Your task to perform on an android device: Open privacy settings Image 0: 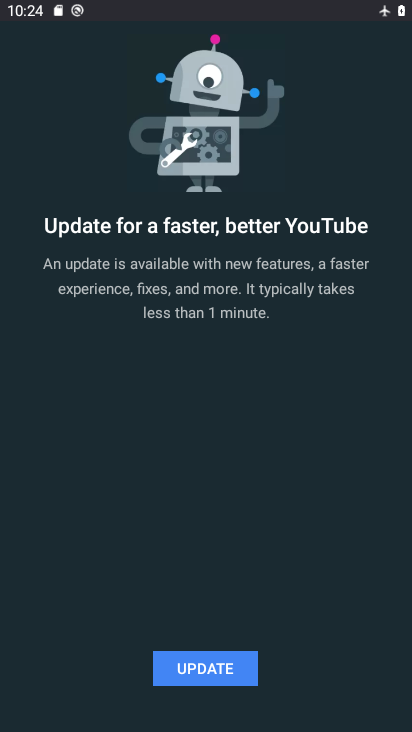
Step 0: press back button
Your task to perform on an android device: Open privacy settings Image 1: 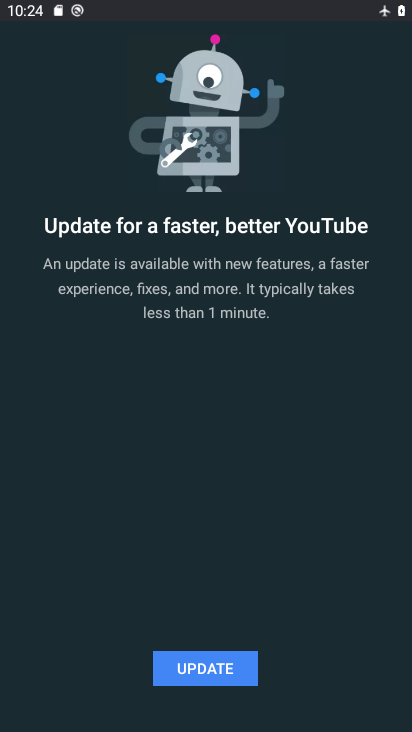
Step 1: press back button
Your task to perform on an android device: Open privacy settings Image 2: 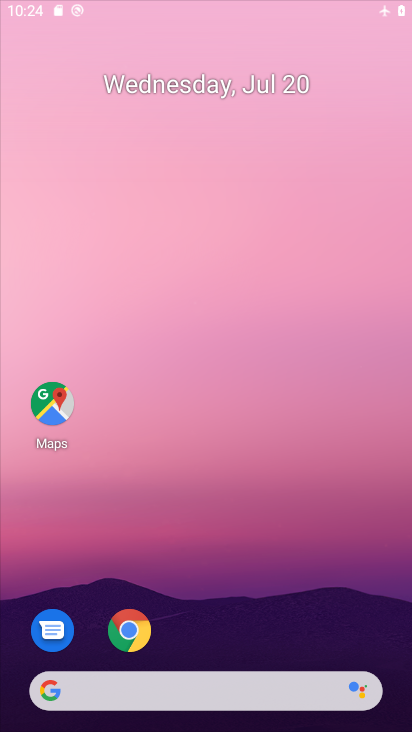
Step 2: press back button
Your task to perform on an android device: Open privacy settings Image 3: 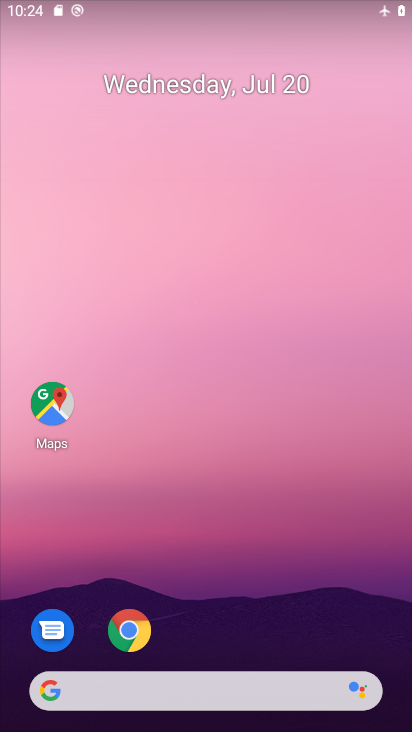
Step 3: drag from (238, 621) to (205, 264)
Your task to perform on an android device: Open privacy settings Image 4: 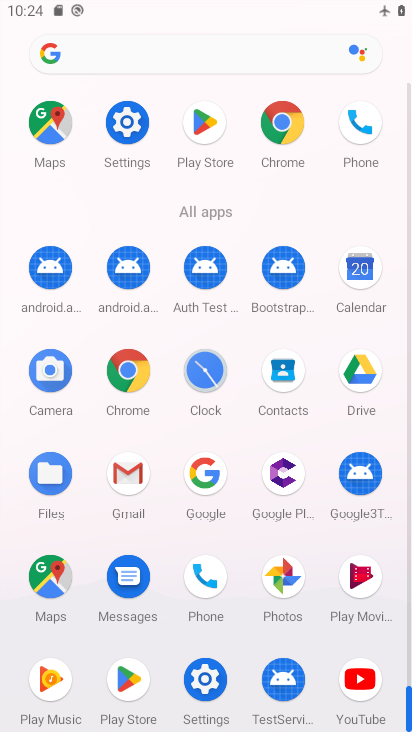
Step 4: click (209, 670)
Your task to perform on an android device: Open privacy settings Image 5: 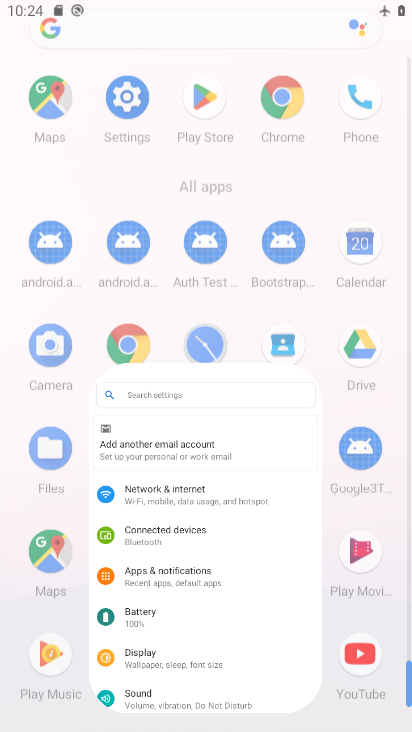
Step 5: click (209, 671)
Your task to perform on an android device: Open privacy settings Image 6: 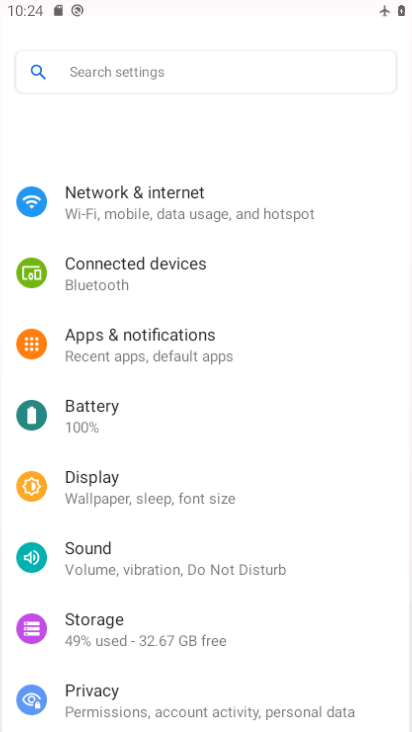
Step 6: click (210, 673)
Your task to perform on an android device: Open privacy settings Image 7: 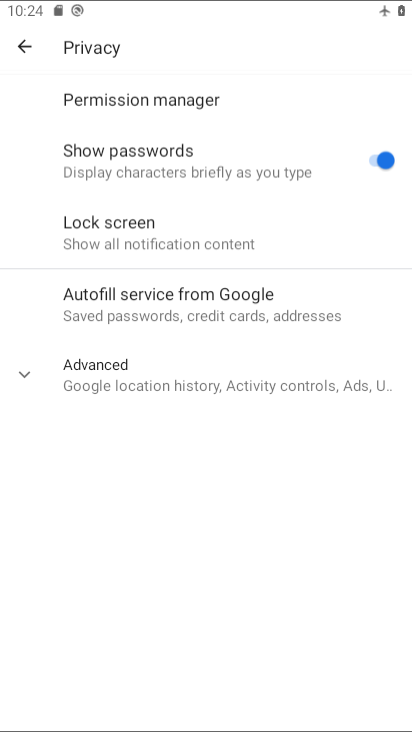
Step 7: click (75, 658)
Your task to perform on an android device: Open privacy settings Image 8: 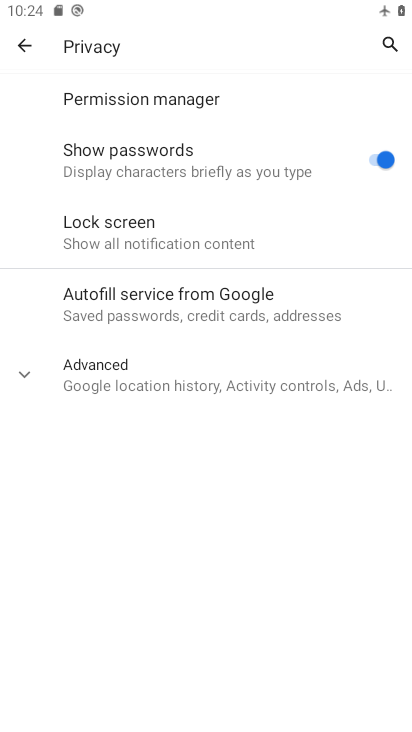
Step 8: click (80, 664)
Your task to perform on an android device: Open privacy settings Image 9: 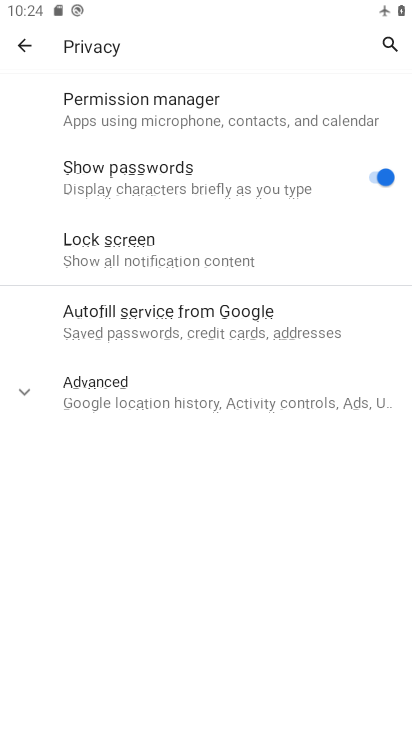
Step 9: click (81, 664)
Your task to perform on an android device: Open privacy settings Image 10: 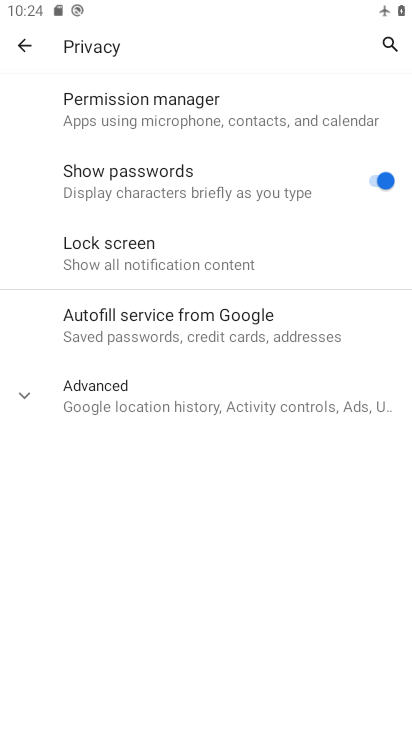
Step 10: click (87, 664)
Your task to perform on an android device: Open privacy settings Image 11: 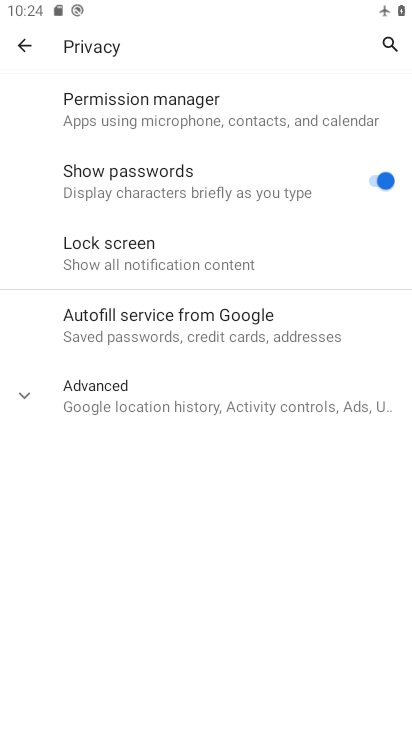
Step 11: task complete